Your task to perform on an android device: Show me the alarms in the clock app Image 0: 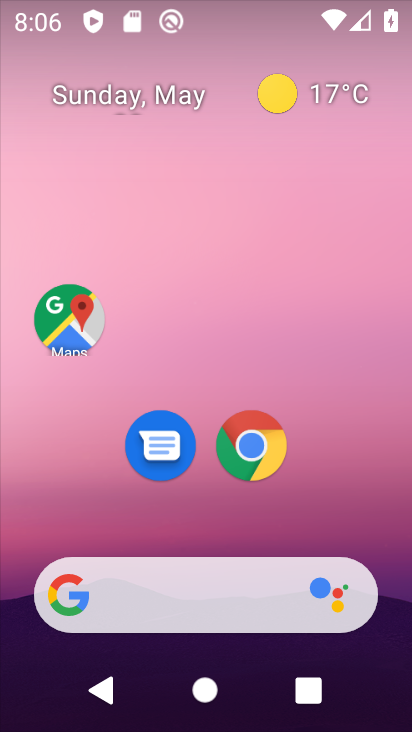
Step 0: drag from (203, 506) to (197, 156)
Your task to perform on an android device: Show me the alarms in the clock app Image 1: 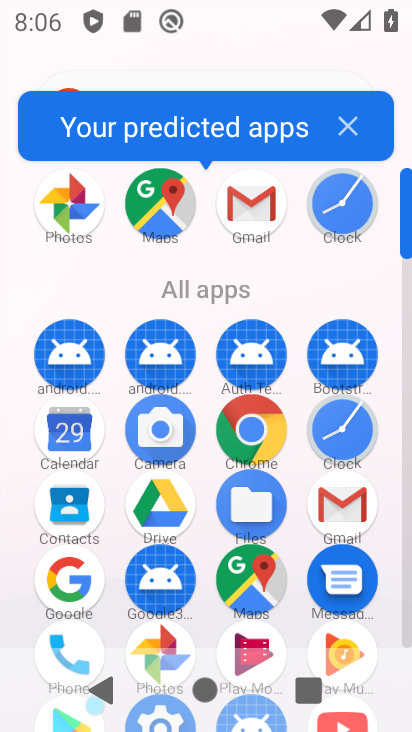
Step 1: click (364, 424)
Your task to perform on an android device: Show me the alarms in the clock app Image 2: 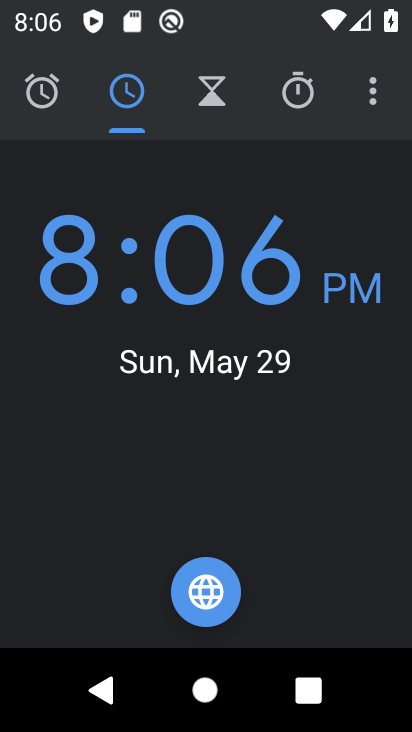
Step 2: click (63, 118)
Your task to perform on an android device: Show me the alarms in the clock app Image 3: 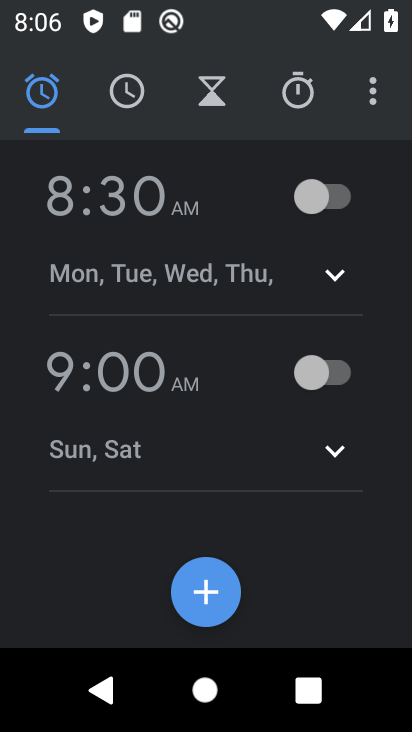
Step 3: task complete